Your task to perform on an android device: Open Maps and search for coffee Image 0: 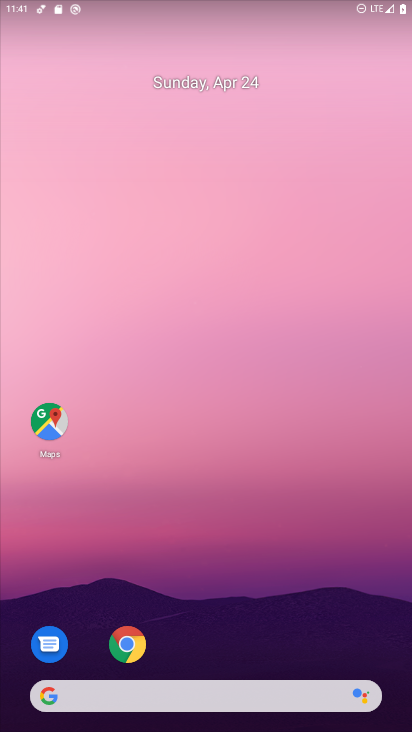
Step 0: click (46, 422)
Your task to perform on an android device: Open Maps and search for coffee Image 1: 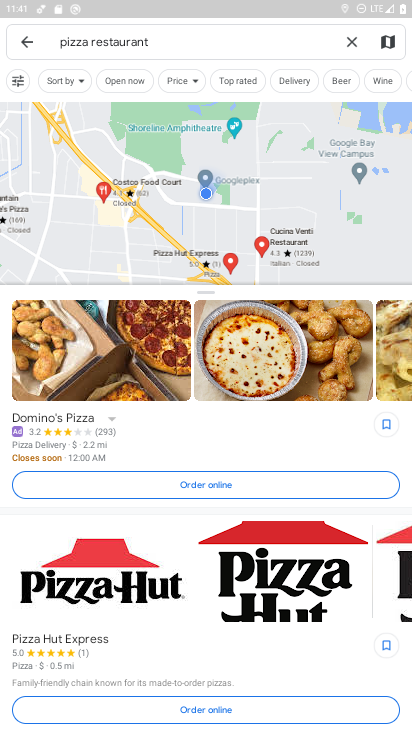
Step 1: click (351, 42)
Your task to perform on an android device: Open Maps and search for coffee Image 2: 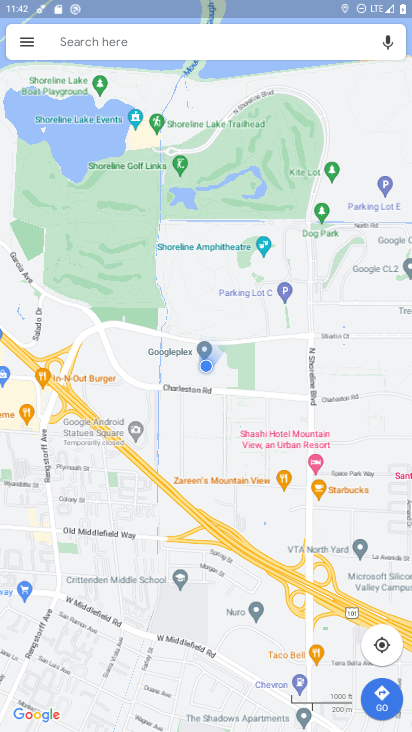
Step 2: click (179, 44)
Your task to perform on an android device: Open Maps and search for coffee Image 3: 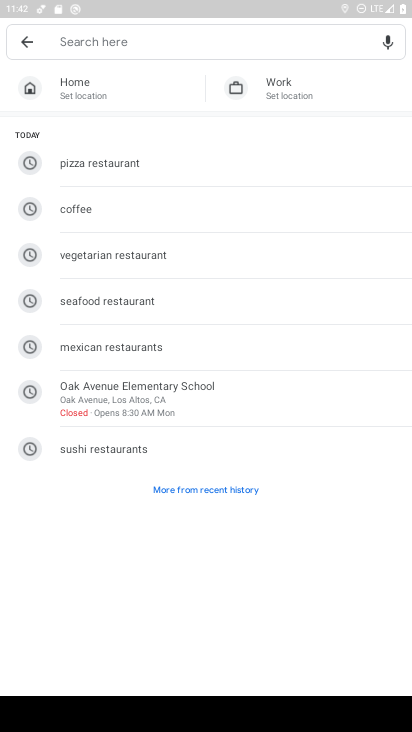
Step 3: type "coffee"
Your task to perform on an android device: Open Maps and search for coffee Image 4: 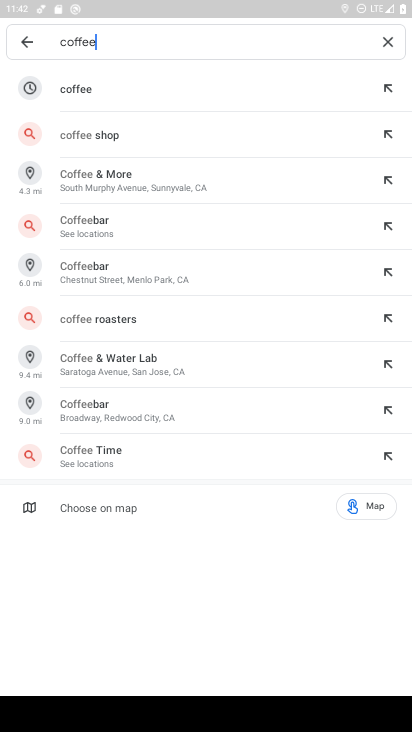
Step 4: click (231, 92)
Your task to perform on an android device: Open Maps and search for coffee Image 5: 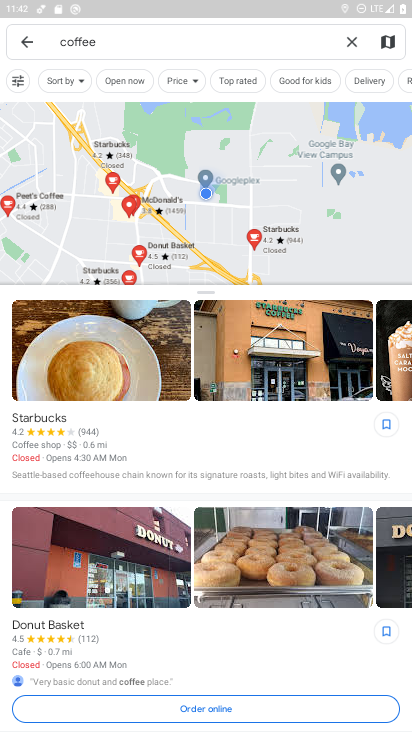
Step 5: task complete